Your task to perform on an android device: Is it going to rain this weekend? Image 0: 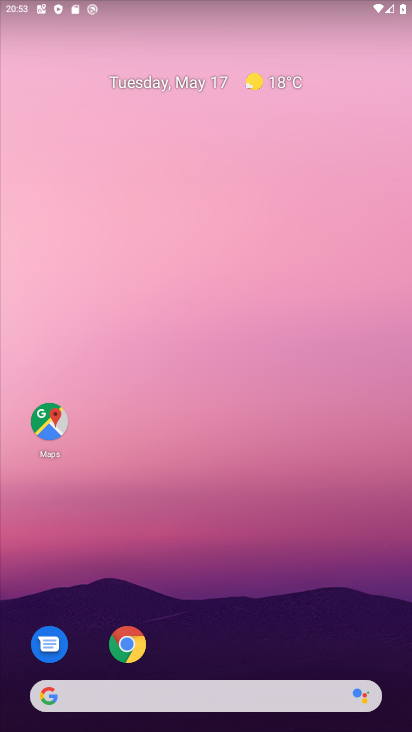
Step 0: click (280, 84)
Your task to perform on an android device: Is it going to rain this weekend? Image 1: 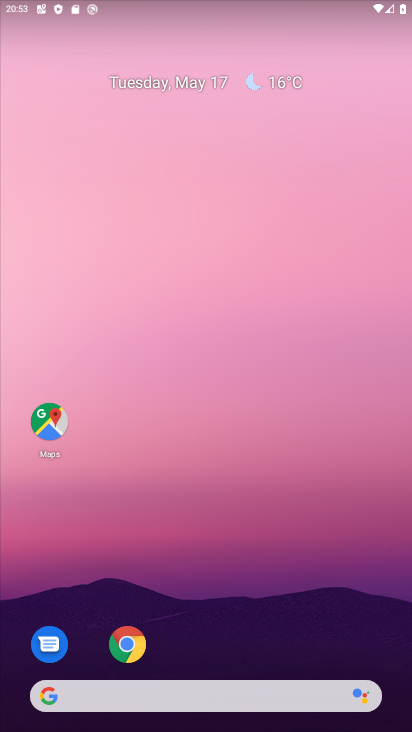
Step 1: drag from (182, 552) to (295, 3)
Your task to perform on an android device: Is it going to rain this weekend? Image 2: 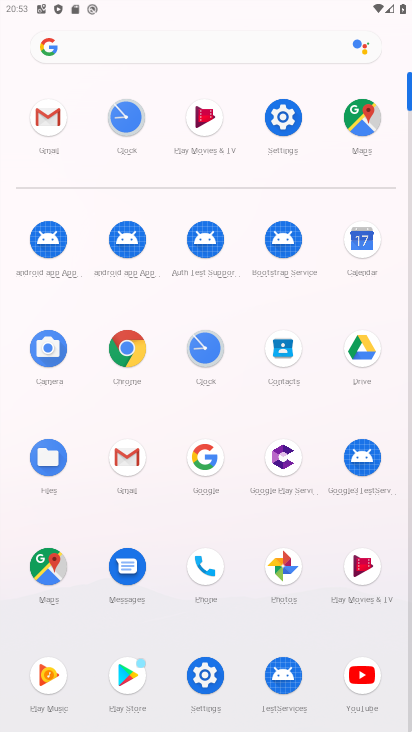
Step 2: press back button
Your task to perform on an android device: Is it going to rain this weekend? Image 3: 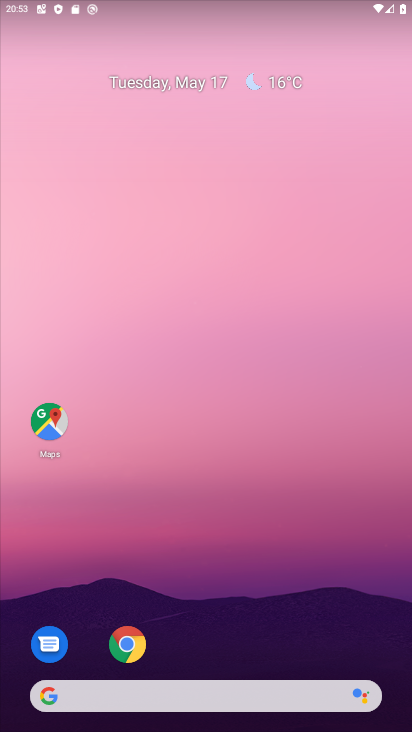
Step 3: click (260, 77)
Your task to perform on an android device: Is it going to rain this weekend? Image 4: 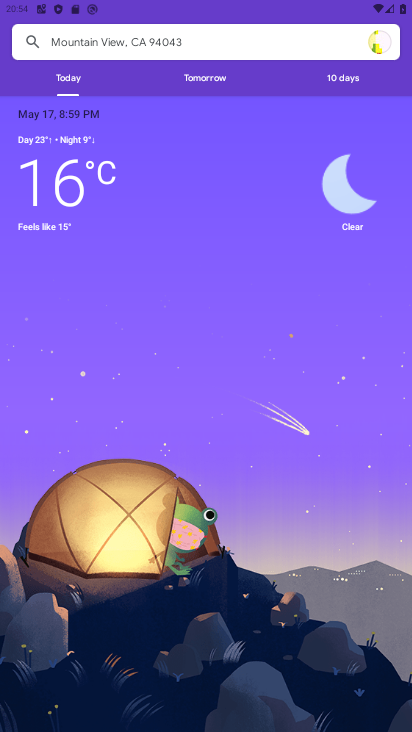
Step 4: click (347, 72)
Your task to perform on an android device: Is it going to rain this weekend? Image 5: 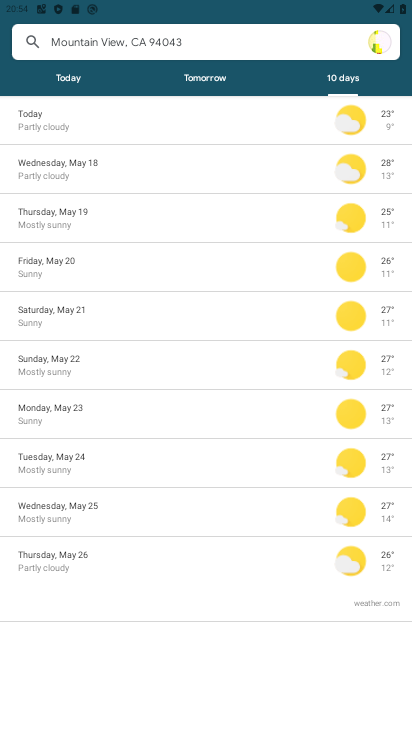
Step 5: task complete